Your task to perform on an android device: Show me recent news Image 0: 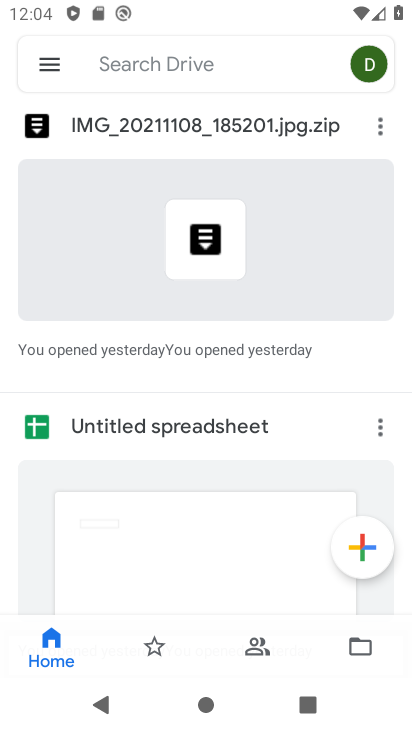
Step 0: press home button
Your task to perform on an android device: Show me recent news Image 1: 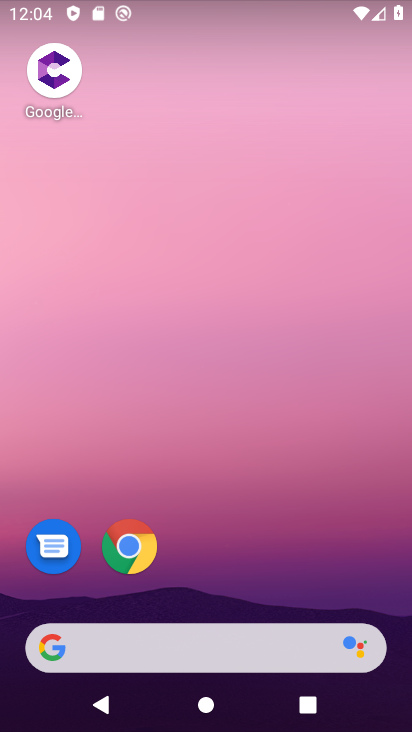
Step 1: click (266, 653)
Your task to perform on an android device: Show me recent news Image 2: 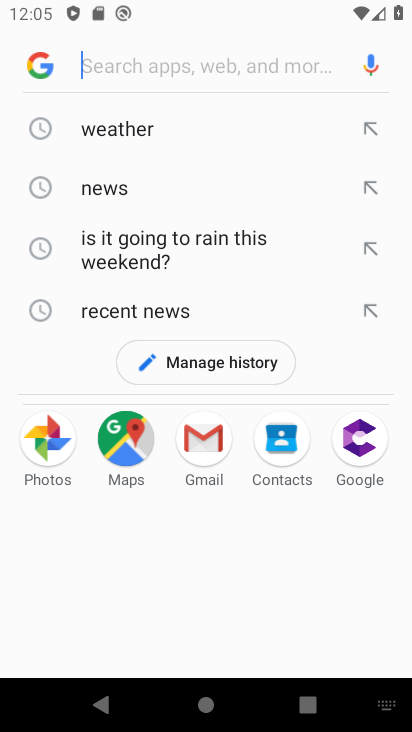
Step 2: click (92, 310)
Your task to perform on an android device: Show me recent news Image 3: 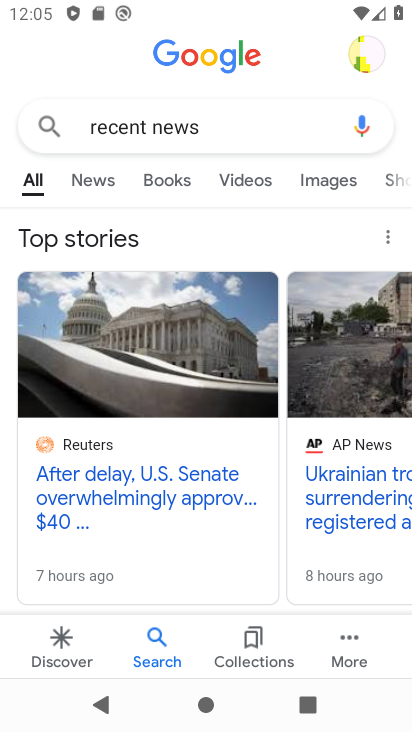
Step 3: click (95, 173)
Your task to perform on an android device: Show me recent news Image 4: 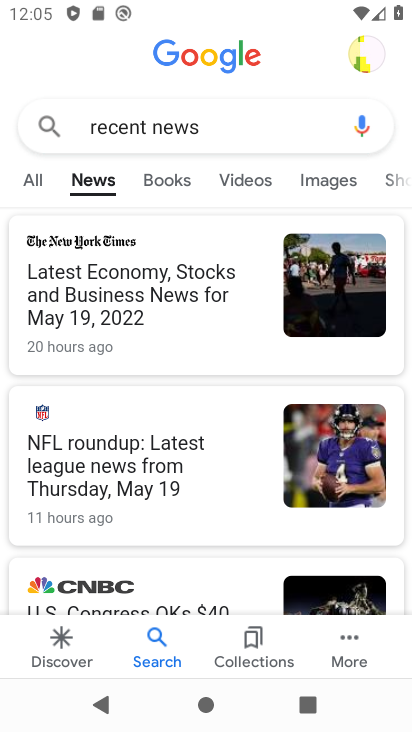
Step 4: task complete